Your task to perform on an android device: change the clock display to show seconds Image 0: 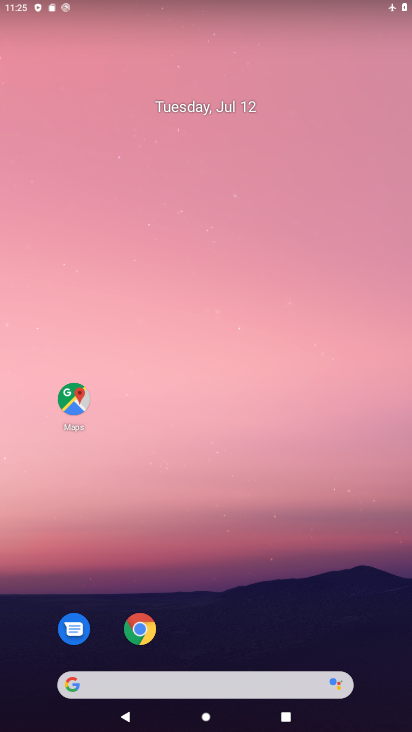
Step 0: drag from (199, 653) to (148, 108)
Your task to perform on an android device: change the clock display to show seconds Image 1: 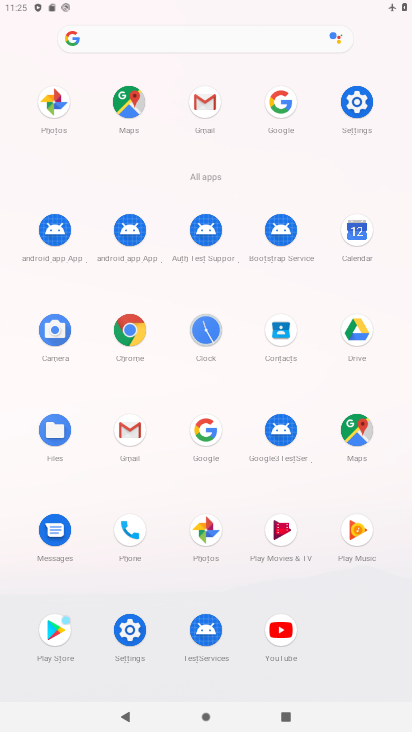
Step 1: click (215, 329)
Your task to perform on an android device: change the clock display to show seconds Image 2: 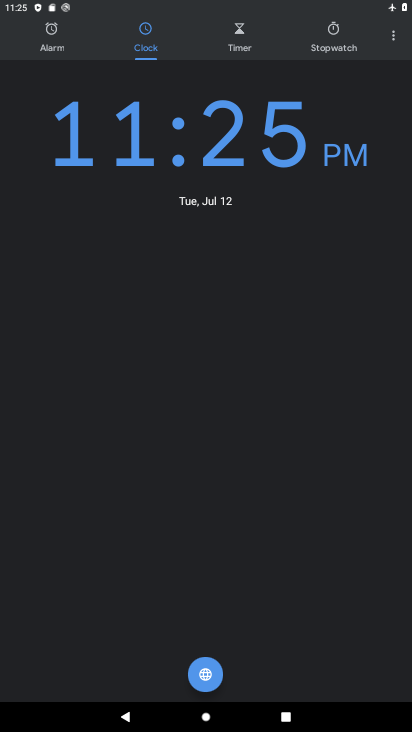
Step 2: click (395, 36)
Your task to perform on an android device: change the clock display to show seconds Image 3: 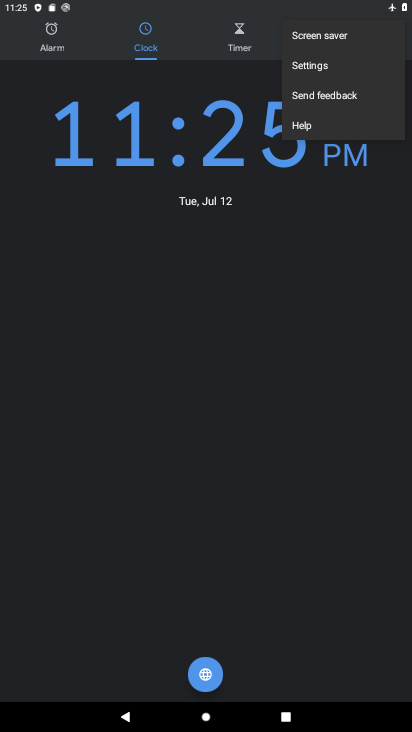
Step 3: click (324, 65)
Your task to perform on an android device: change the clock display to show seconds Image 4: 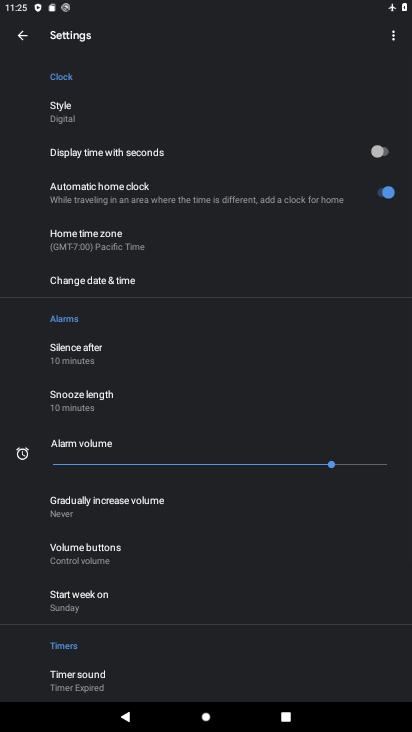
Step 4: click (232, 155)
Your task to perform on an android device: change the clock display to show seconds Image 5: 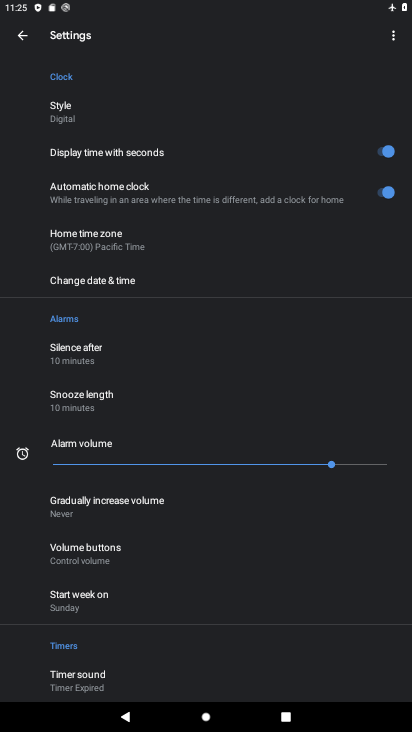
Step 5: task complete